Your task to perform on an android device: turn on wifi Image 0: 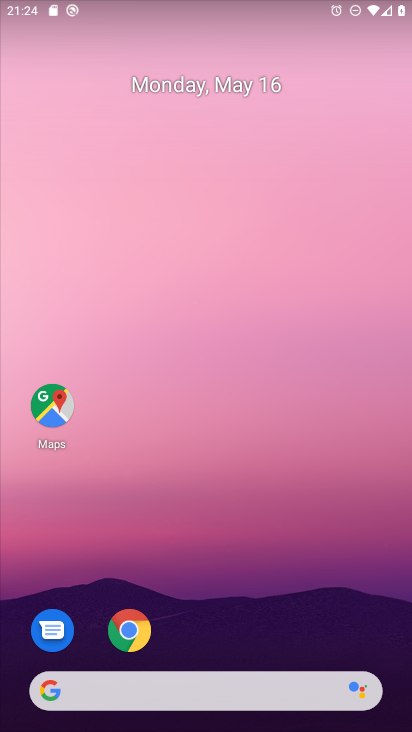
Step 0: drag from (243, 587) to (366, 177)
Your task to perform on an android device: turn on wifi Image 1: 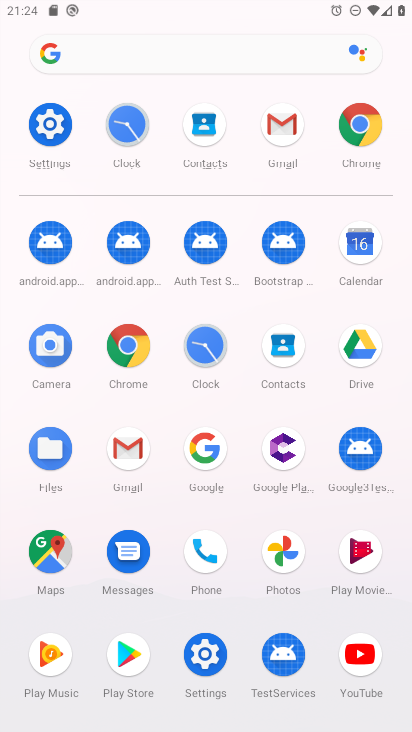
Step 1: click (53, 140)
Your task to perform on an android device: turn on wifi Image 2: 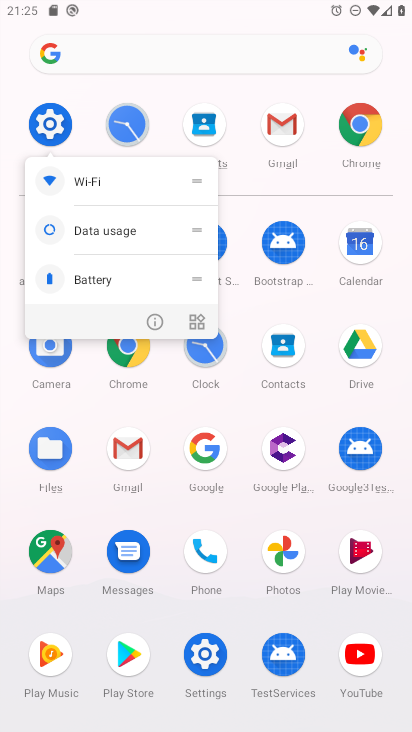
Step 2: click (60, 132)
Your task to perform on an android device: turn on wifi Image 3: 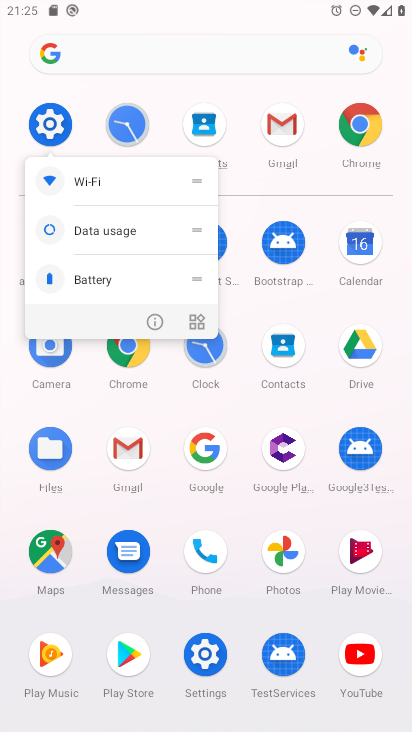
Step 3: click (203, 181)
Your task to perform on an android device: turn on wifi Image 4: 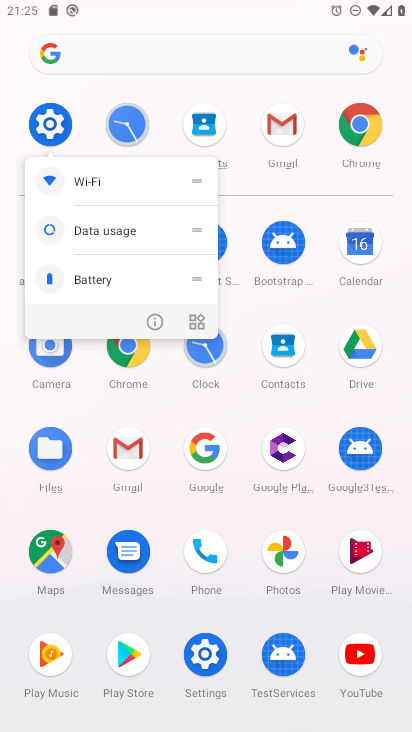
Step 4: click (46, 127)
Your task to perform on an android device: turn on wifi Image 5: 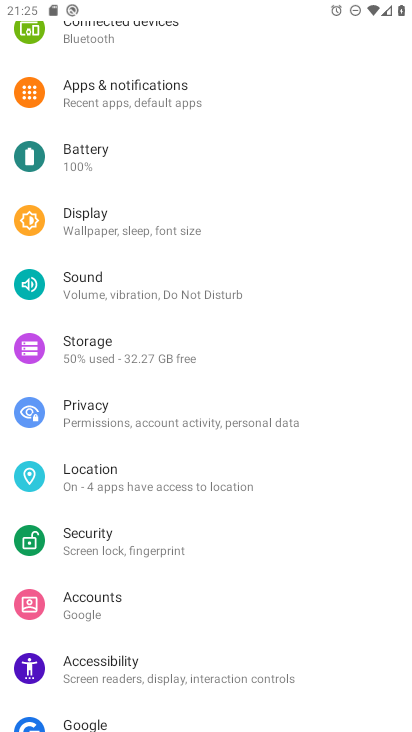
Step 5: drag from (203, 124) to (142, 516)
Your task to perform on an android device: turn on wifi Image 6: 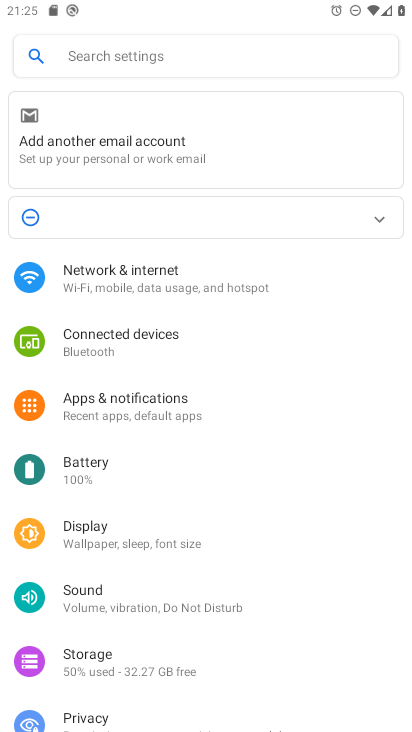
Step 6: click (218, 273)
Your task to perform on an android device: turn on wifi Image 7: 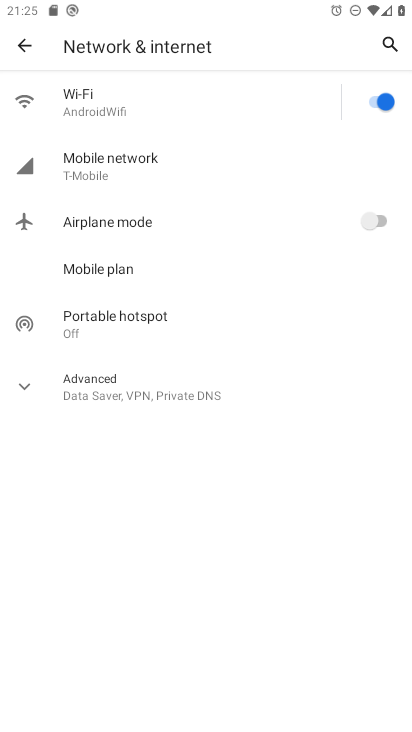
Step 7: click (82, 108)
Your task to perform on an android device: turn on wifi Image 8: 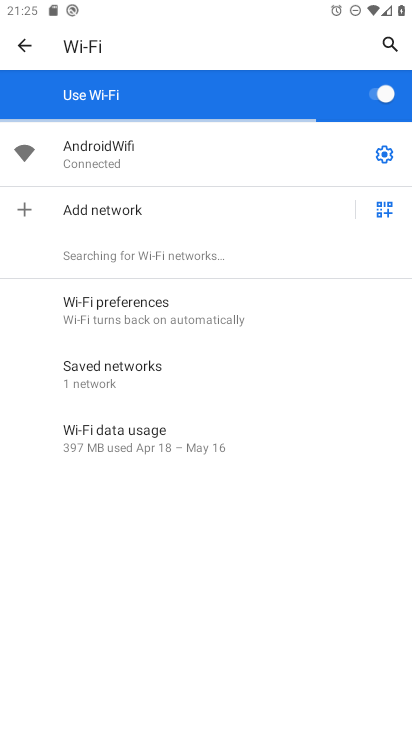
Step 8: task complete